Your task to perform on an android device: Go to settings Image 0: 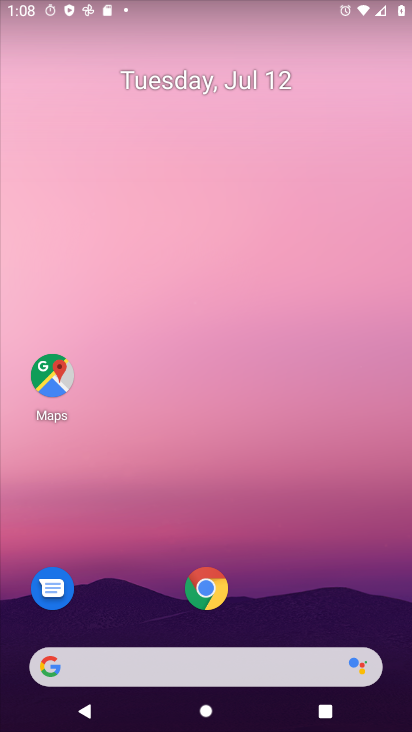
Step 0: drag from (218, 672) to (332, 86)
Your task to perform on an android device: Go to settings Image 1: 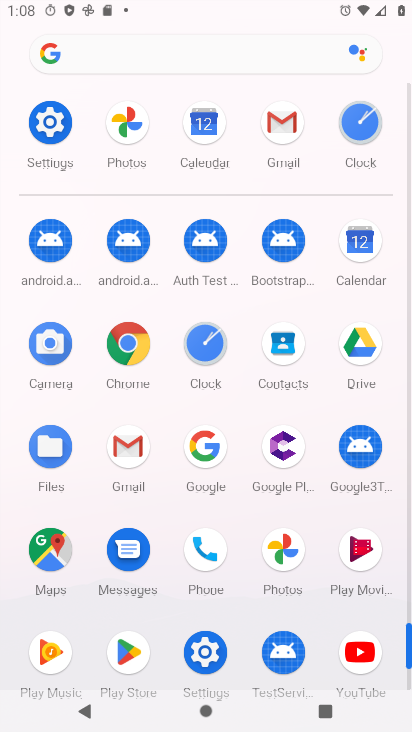
Step 1: click (41, 126)
Your task to perform on an android device: Go to settings Image 2: 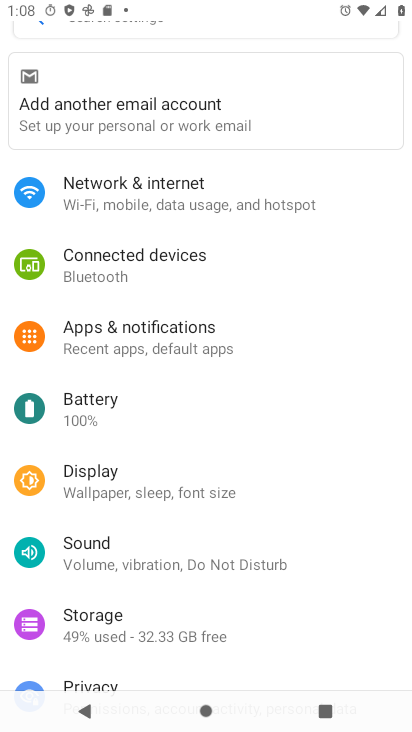
Step 2: task complete